Your task to perform on an android device: turn off wifi Image 0: 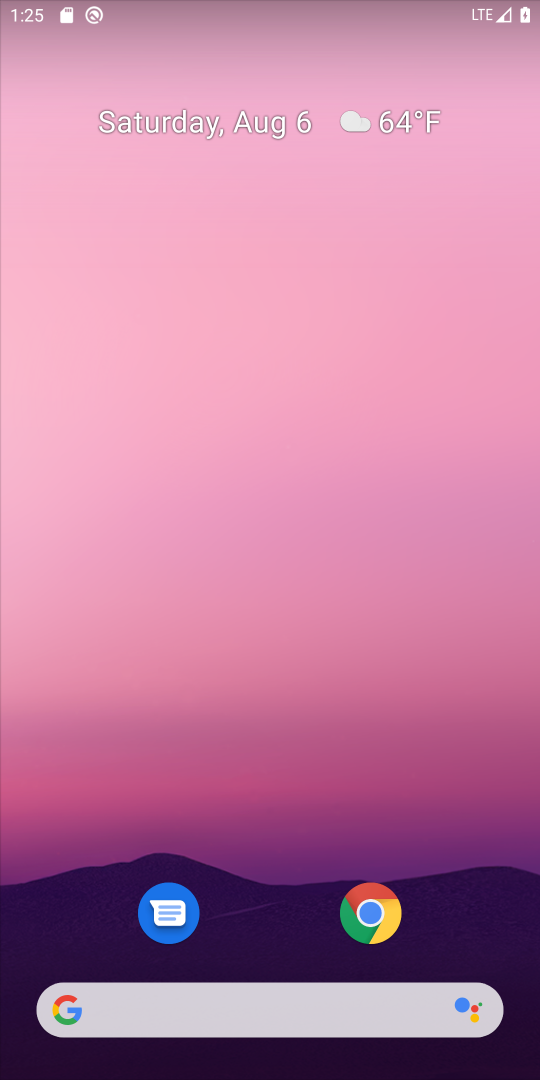
Step 0: press home button
Your task to perform on an android device: turn off wifi Image 1: 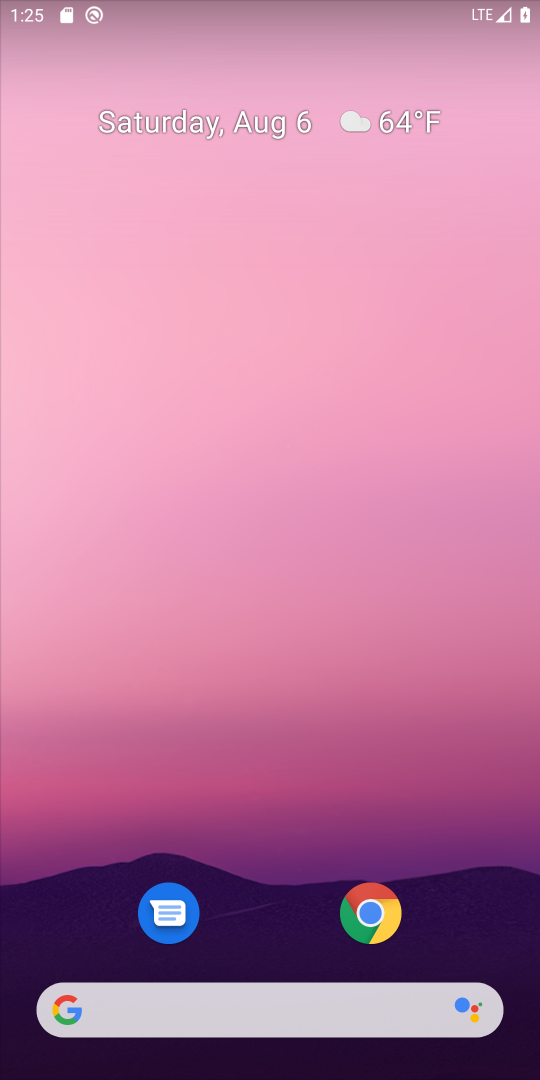
Step 1: drag from (445, 931) to (437, 241)
Your task to perform on an android device: turn off wifi Image 2: 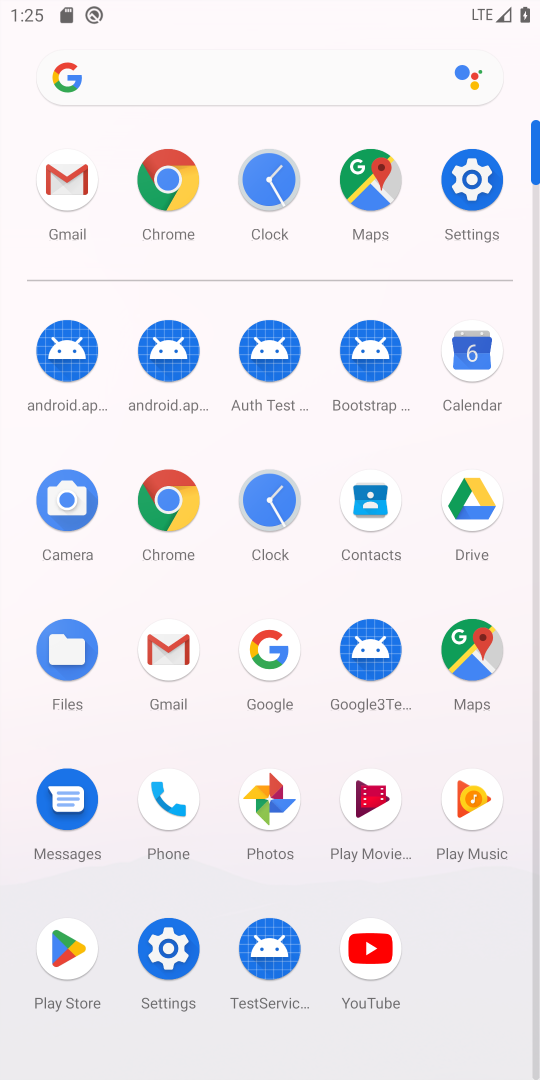
Step 2: click (466, 189)
Your task to perform on an android device: turn off wifi Image 3: 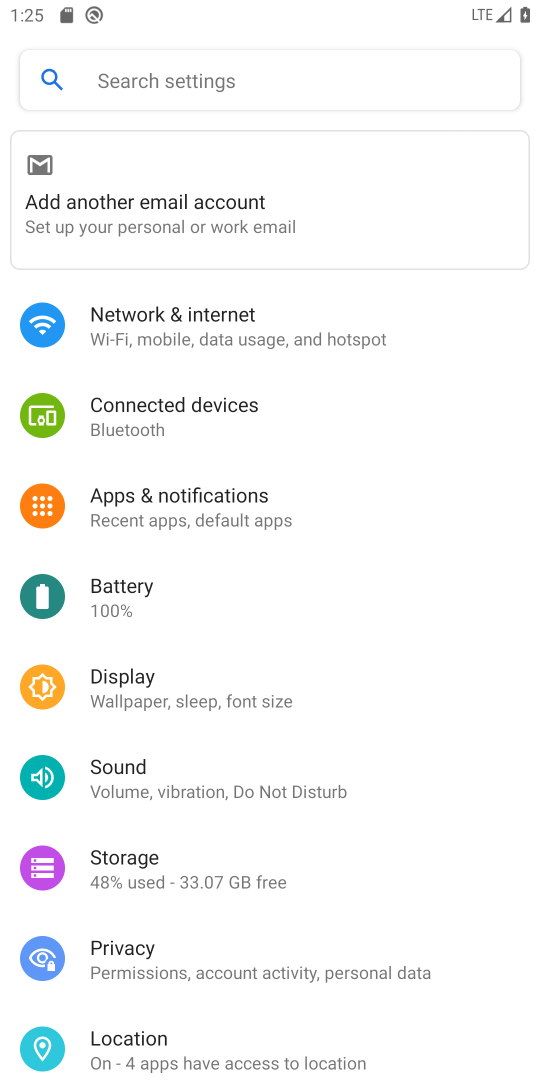
Step 3: drag from (458, 624) to (459, 452)
Your task to perform on an android device: turn off wifi Image 4: 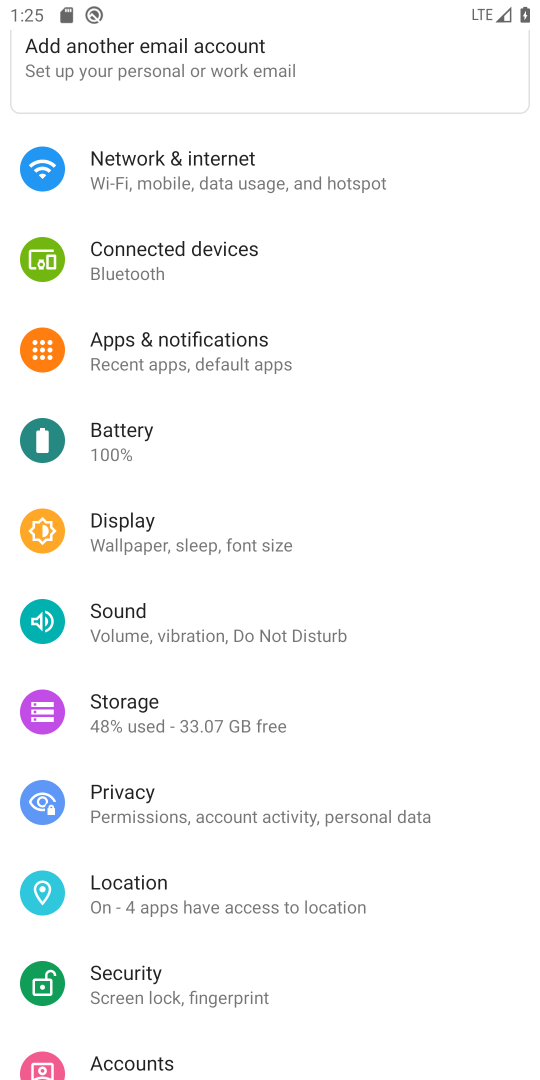
Step 4: drag from (430, 680) to (431, 483)
Your task to perform on an android device: turn off wifi Image 5: 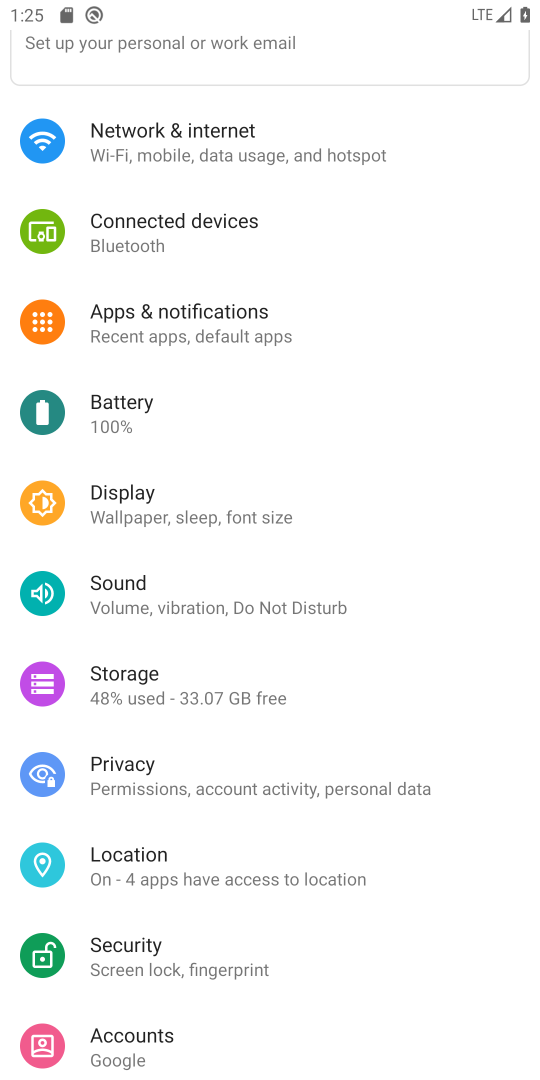
Step 5: drag from (482, 811) to (477, 477)
Your task to perform on an android device: turn off wifi Image 6: 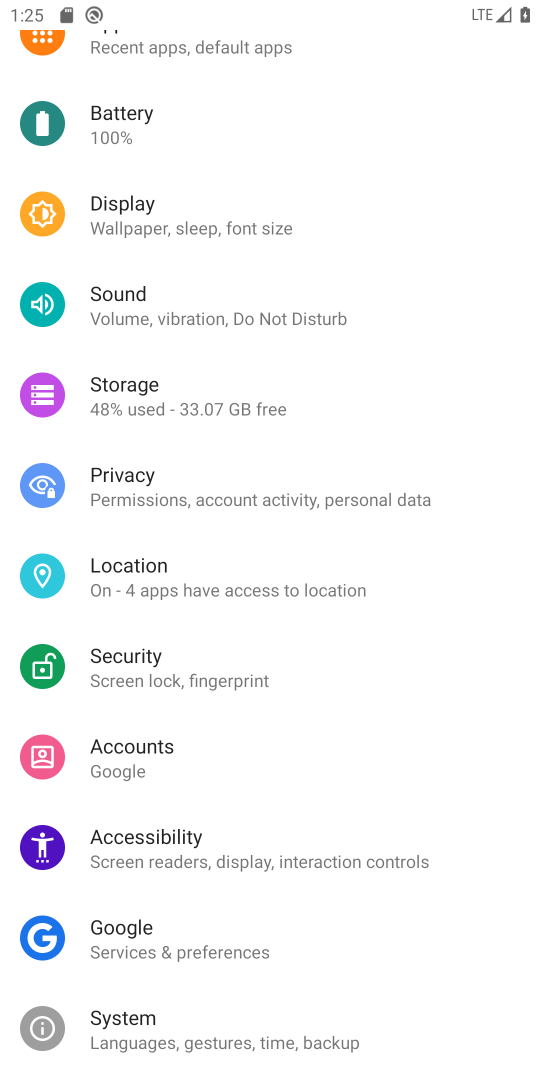
Step 6: drag from (457, 772) to (457, 510)
Your task to perform on an android device: turn off wifi Image 7: 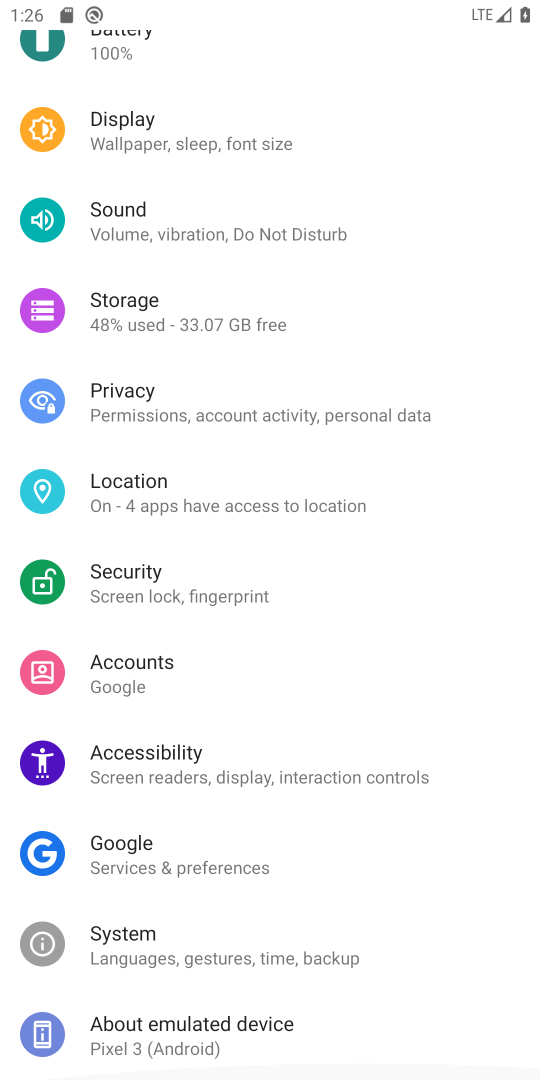
Step 7: drag from (450, 414) to (485, 647)
Your task to perform on an android device: turn off wifi Image 8: 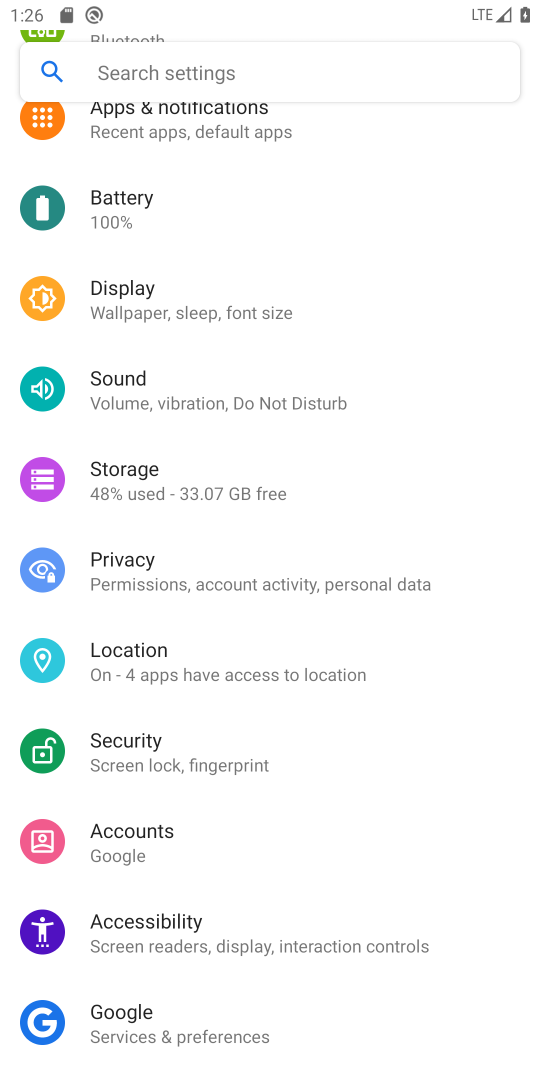
Step 8: drag from (461, 391) to (469, 620)
Your task to perform on an android device: turn off wifi Image 9: 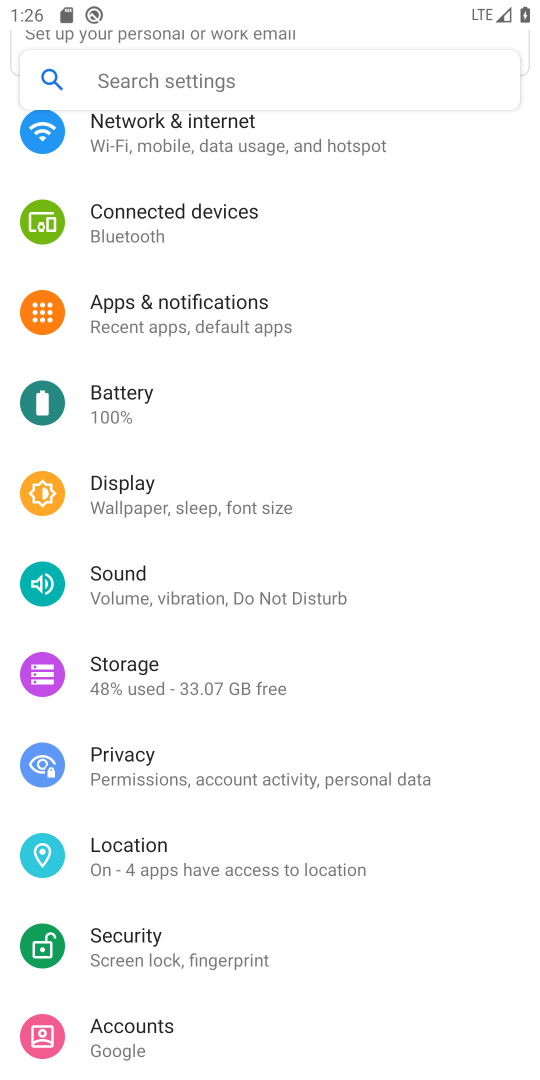
Step 9: drag from (473, 302) to (459, 551)
Your task to perform on an android device: turn off wifi Image 10: 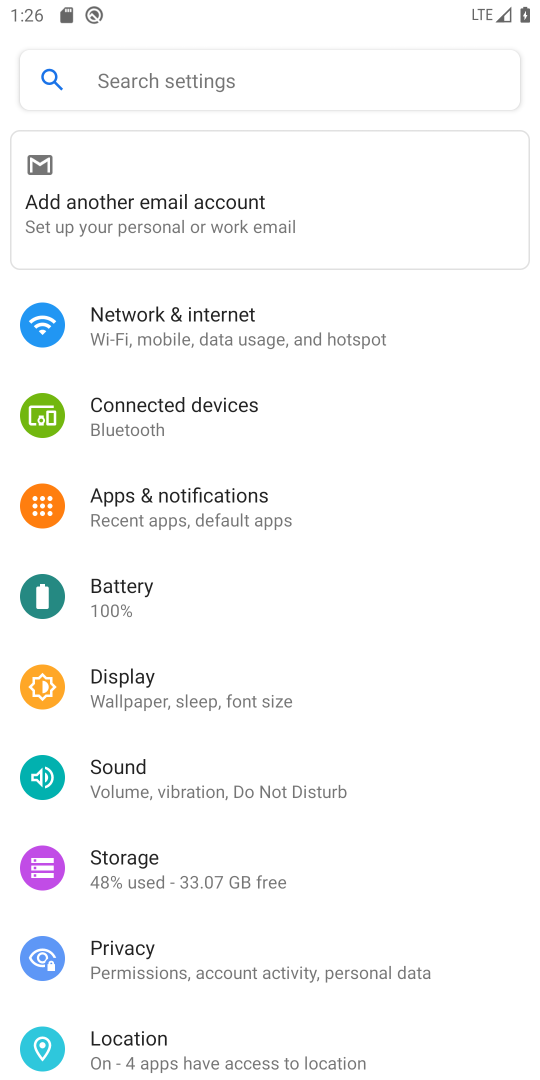
Step 10: drag from (467, 297) to (467, 515)
Your task to perform on an android device: turn off wifi Image 11: 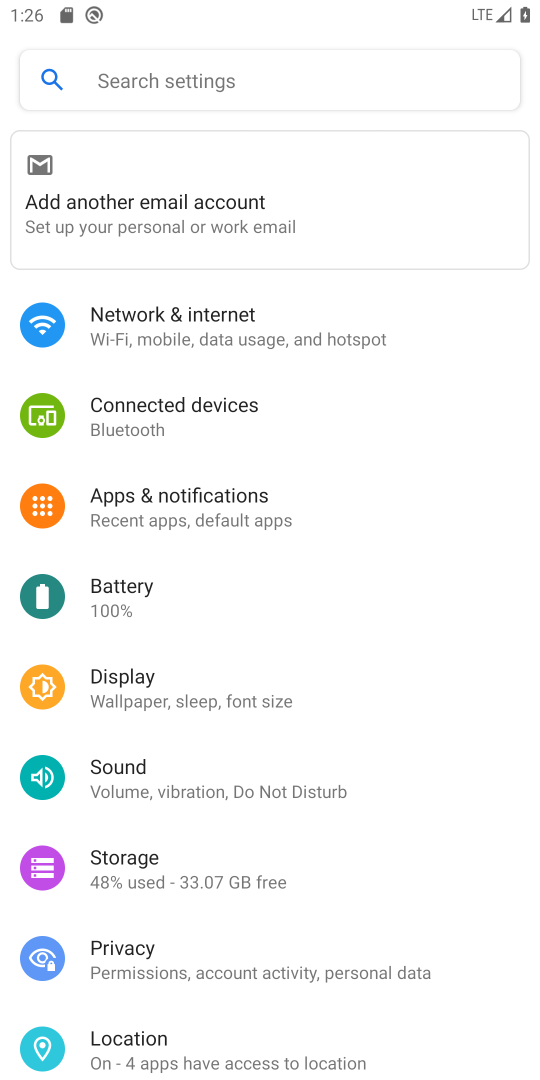
Step 11: click (362, 312)
Your task to perform on an android device: turn off wifi Image 12: 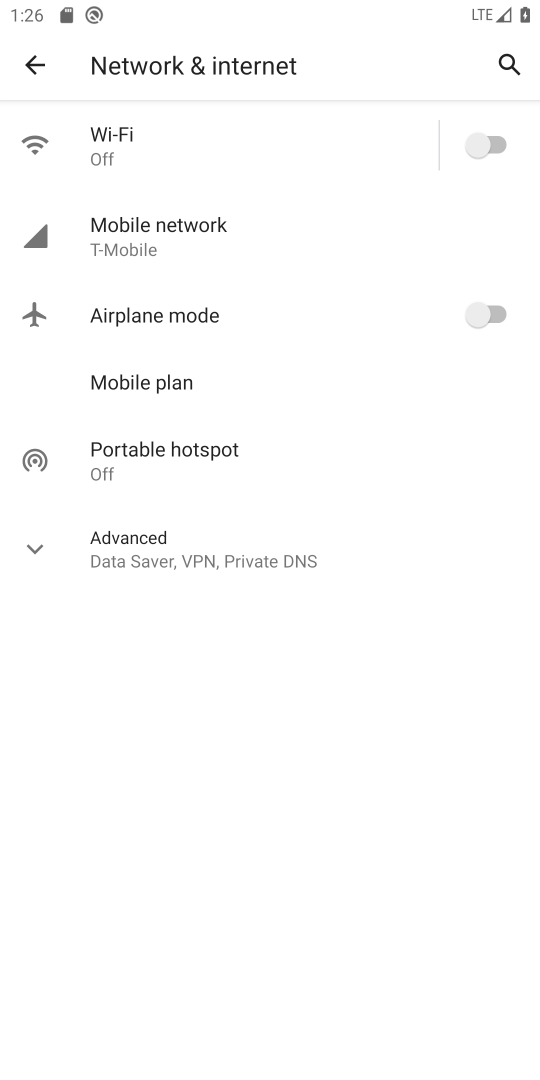
Step 12: task complete